Your task to perform on an android device: Open Amazon Image 0: 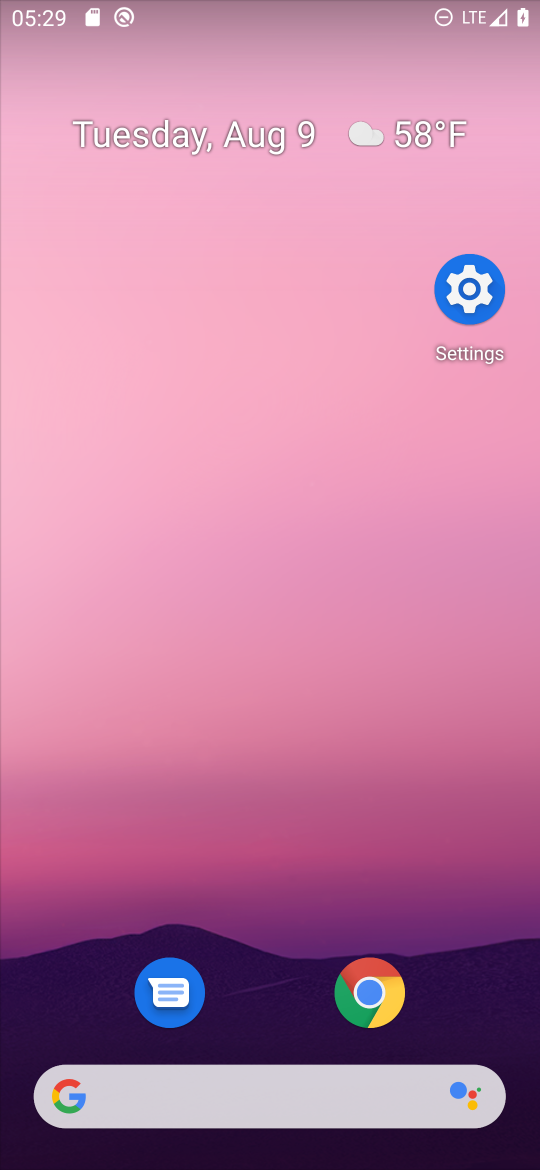
Step 0: drag from (335, 1126) to (299, 50)
Your task to perform on an android device: Open Amazon Image 1: 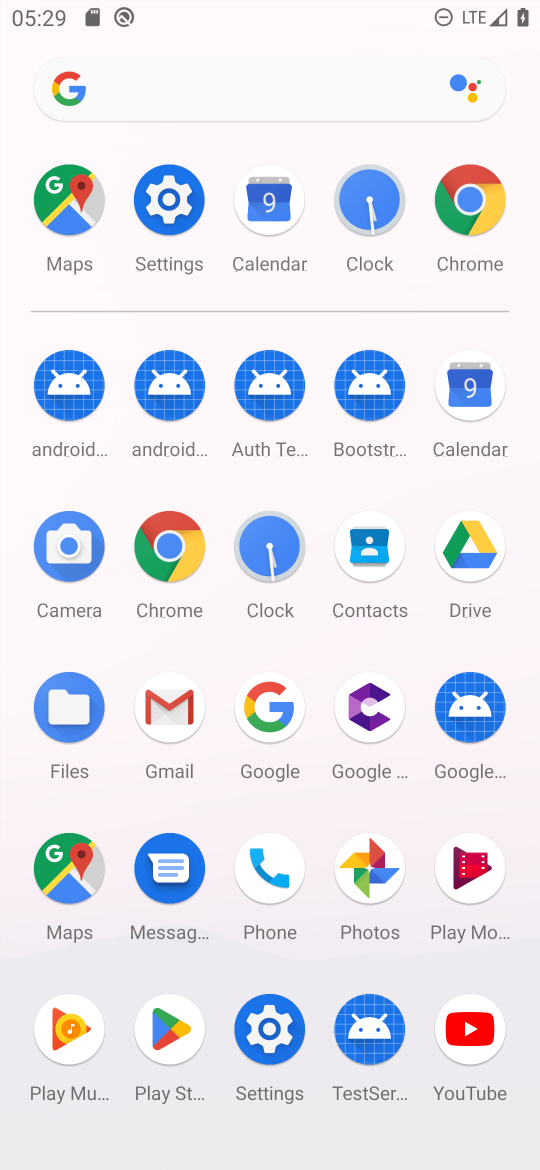
Step 1: click (133, 541)
Your task to perform on an android device: Open Amazon Image 2: 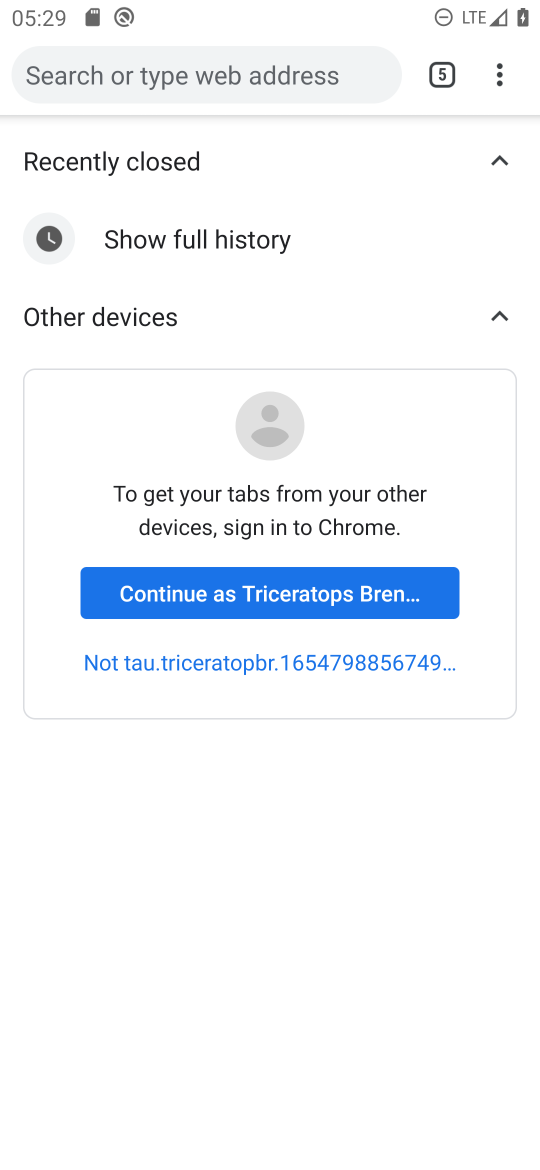
Step 2: click (486, 72)
Your task to perform on an android device: Open Amazon Image 3: 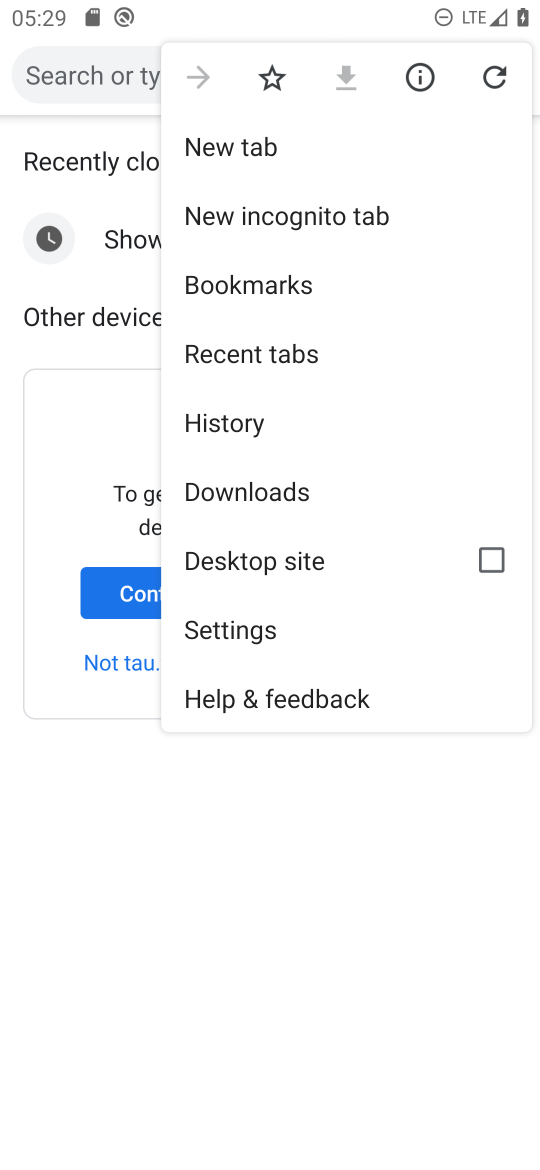
Step 3: click (247, 140)
Your task to perform on an android device: Open Amazon Image 4: 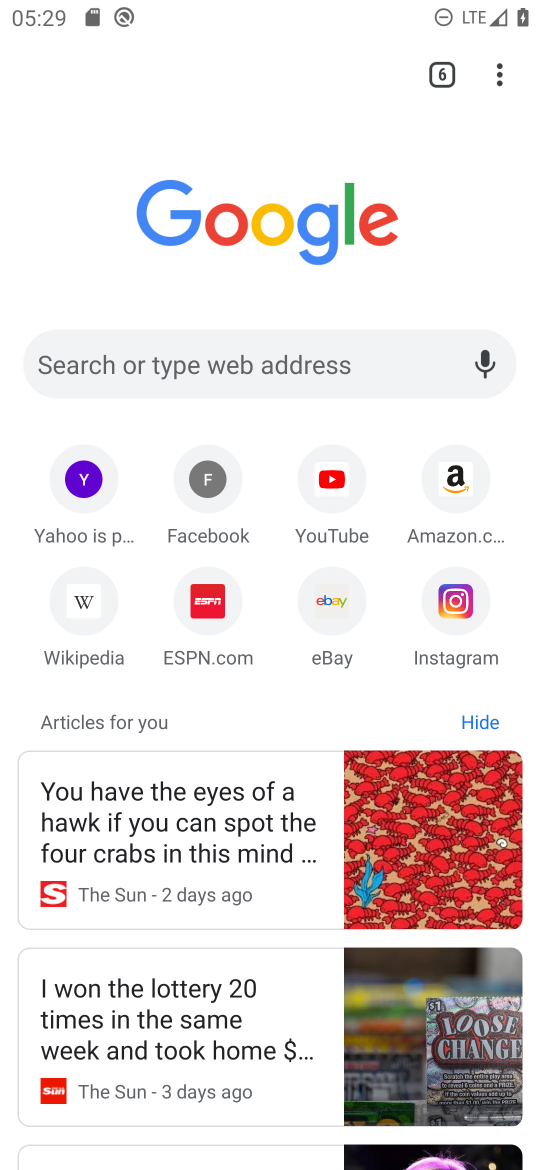
Step 4: click (218, 360)
Your task to perform on an android device: Open Amazon Image 5: 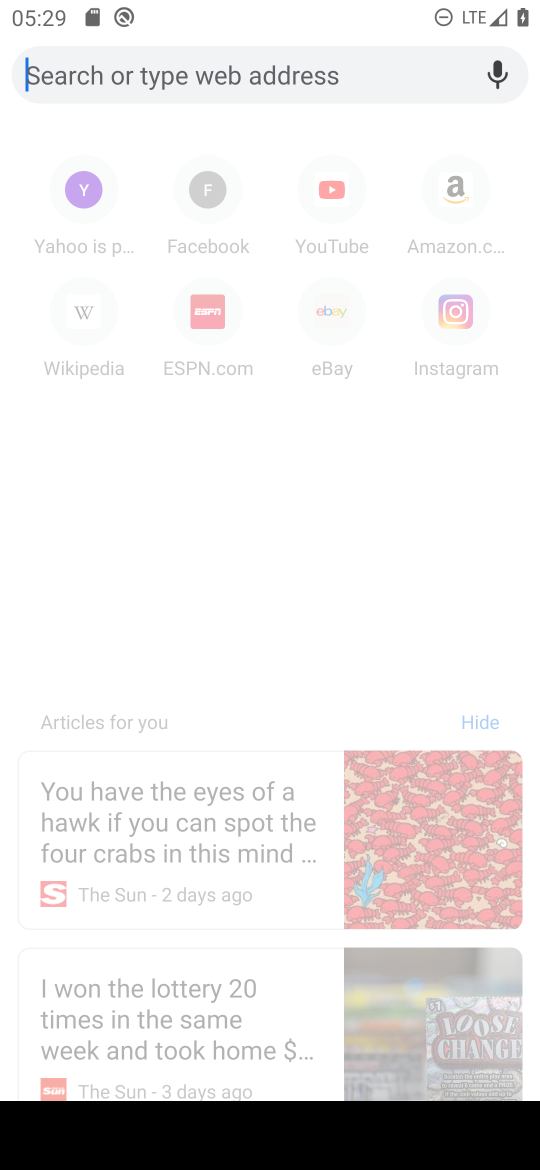
Step 5: type "amazon"
Your task to perform on an android device: Open Amazon Image 6: 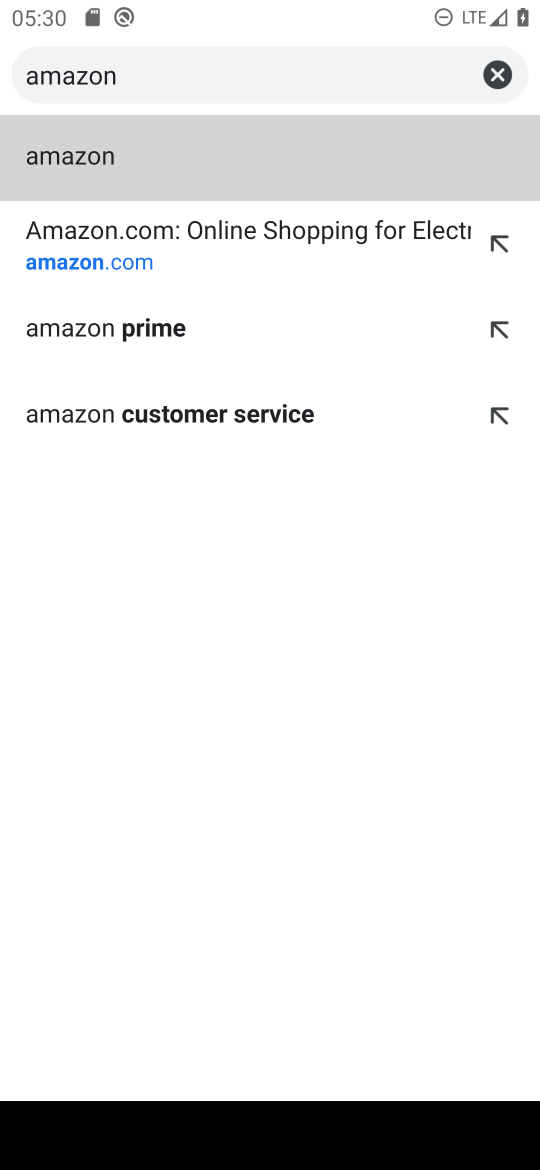
Step 6: click (336, 243)
Your task to perform on an android device: Open Amazon Image 7: 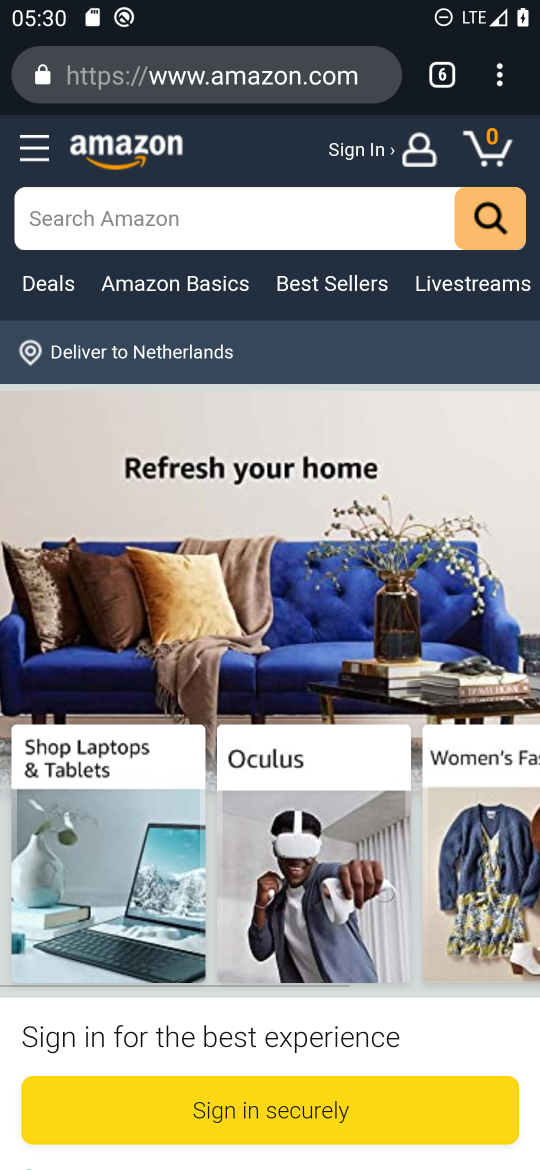
Step 7: task complete